Your task to perform on an android device: toggle sleep mode Image 0: 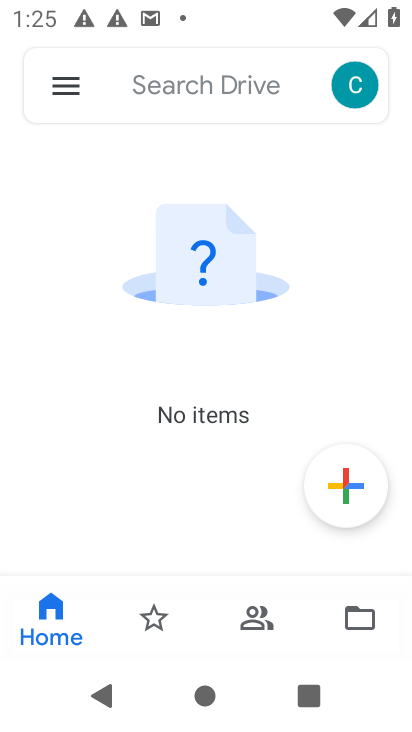
Step 0: press home button
Your task to perform on an android device: toggle sleep mode Image 1: 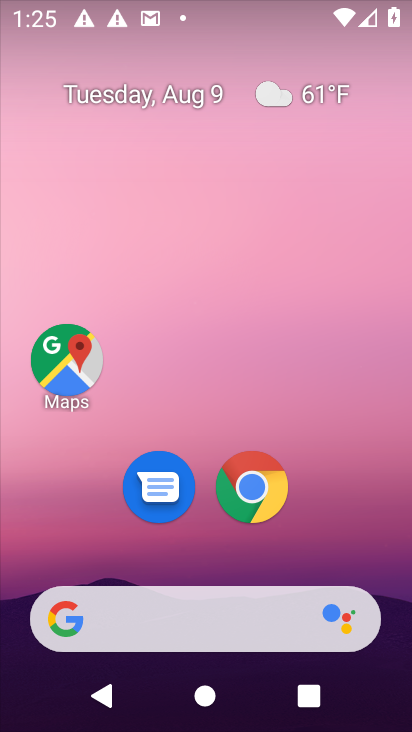
Step 1: drag from (248, 609) to (186, 64)
Your task to perform on an android device: toggle sleep mode Image 2: 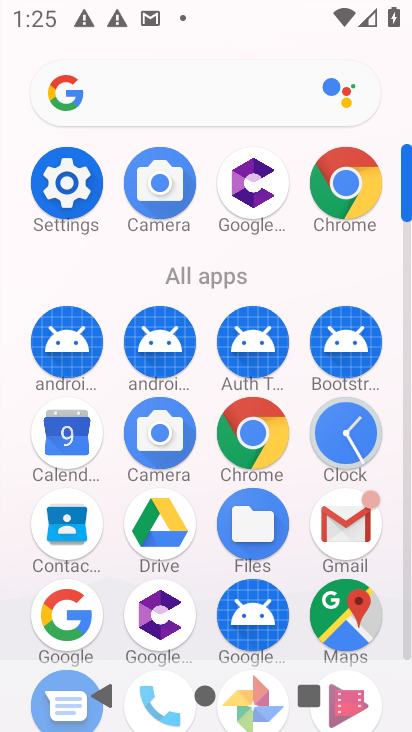
Step 2: click (68, 171)
Your task to perform on an android device: toggle sleep mode Image 3: 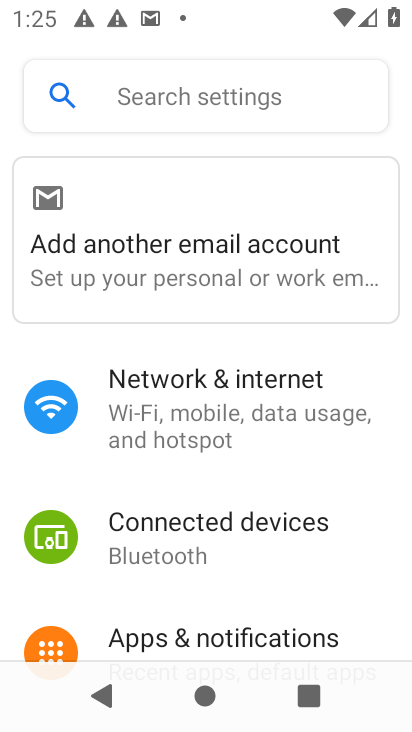
Step 3: drag from (335, 584) to (335, 140)
Your task to perform on an android device: toggle sleep mode Image 4: 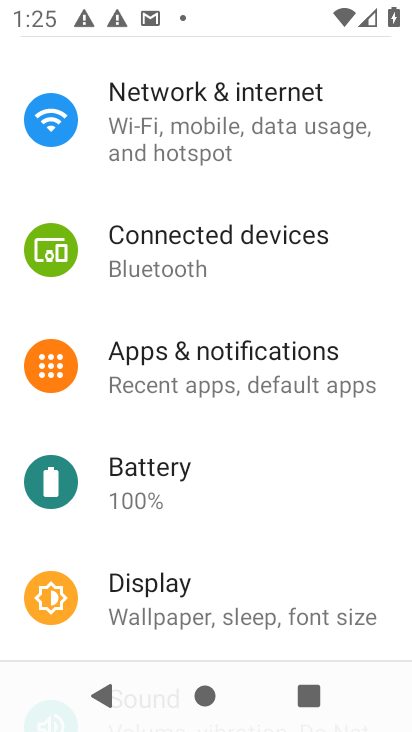
Step 4: click (297, 606)
Your task to perform on an android device: toggle sleep mode Image 5: 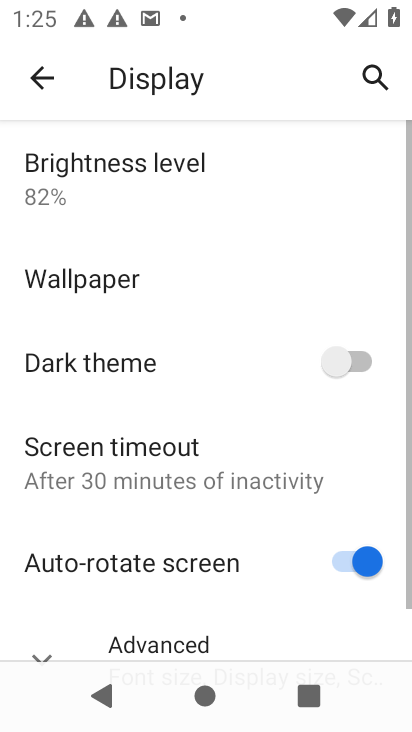
Step 5: task complete